Your task to perform on an android device: Clear the cart on costco. Search for macbook on costco, select the first entry, and add it to the cart. Image 0: 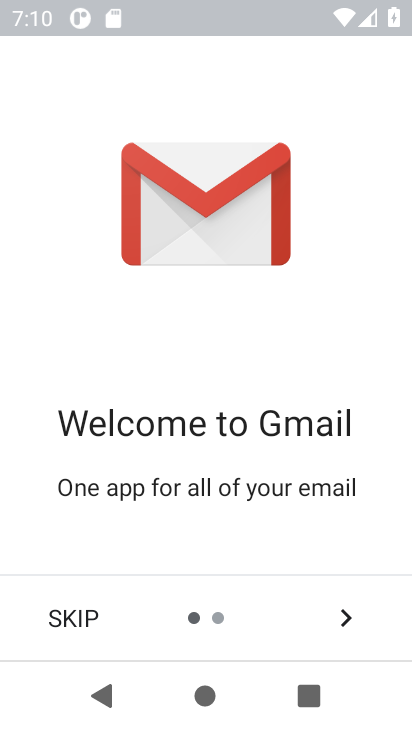
Step 0: press home button
Your task to perform on an android device: Clear the cart on costco. Search for macbook on costco, select the first entry, and add it to the cart. Image 1: 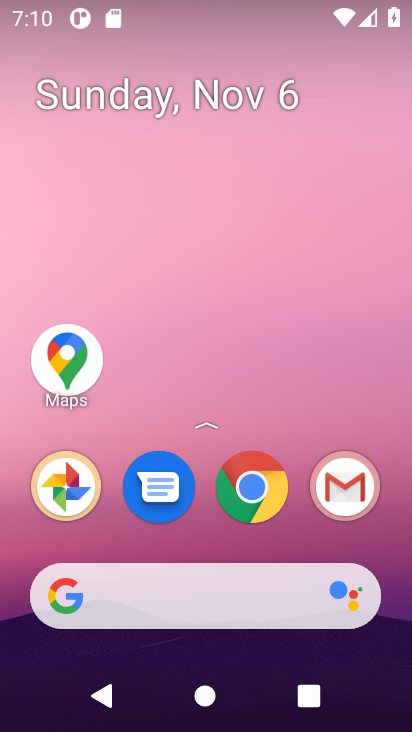
Step 1: click (255, 488)
Your task to perform on an android device: Clear the cart on costco. Search for macbook on costco, select the first entry, and add it to the cart. Image 2: 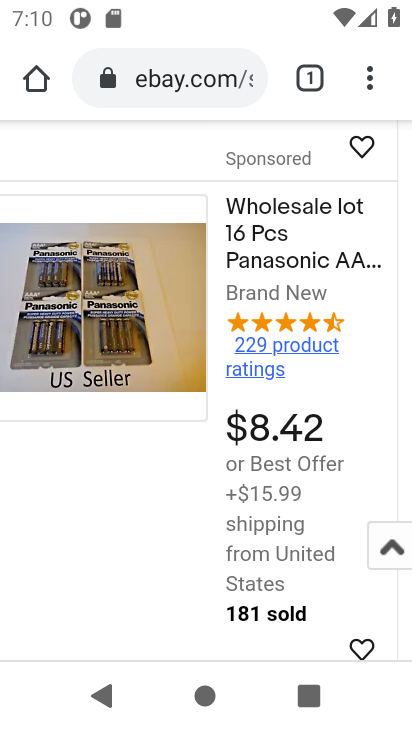
Step 2: click (187, 66)
Your task to perform on an android device: Clear the cart on costco. Search for macbook on costco, select the first entry, and add it to the cart. Image 3: 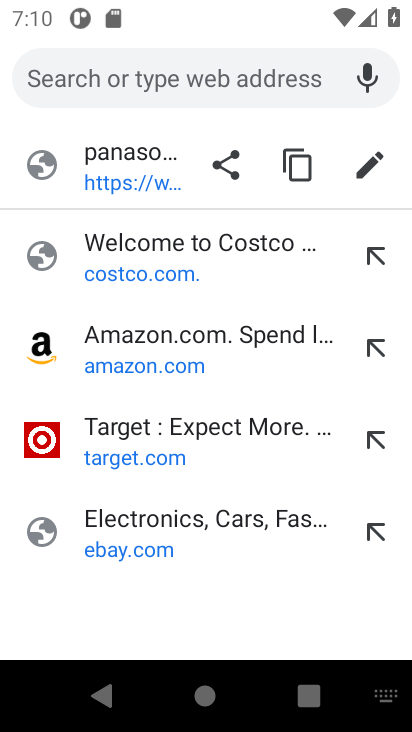
Step 3: click (150, 252)
Your task to perform on an android device: Clear the cart on costco. Search for macbook on costco, select the first entry, and add it to the cart. Image 4: 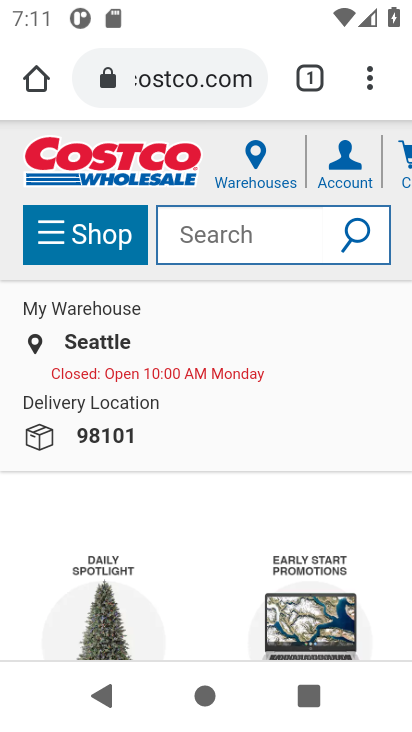
Step 4: click (230, 220)
Your task to perform on an android device: Clear the cart on costco. Search for macbook on costco, select the first entry, and add it to the cart. Image 5: 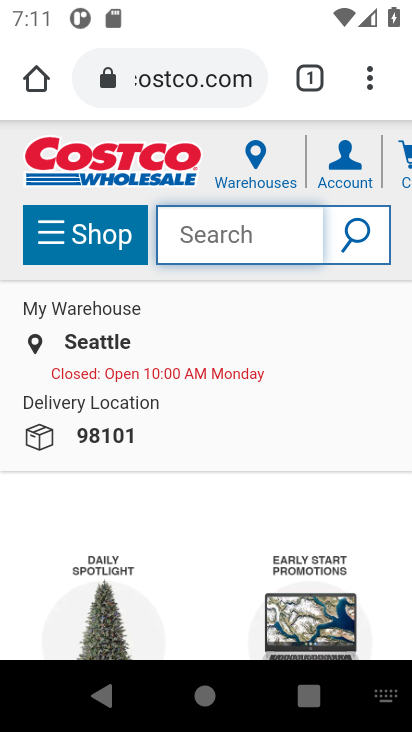
Step 5: click (229, 239)
Your task to perform on an android device: Clear the cart on costco. Search for macbook on costco, select the first entry, and add it to the cart. Image 6: 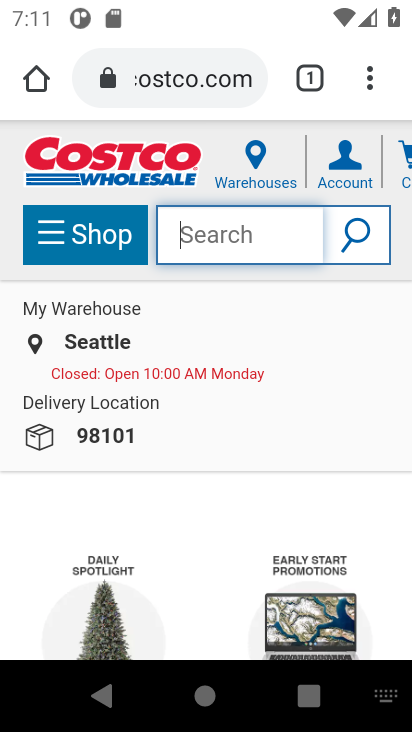
Step 6: type "macbook "
Your task to perform on an android device: Clear the cart on costco. Search for macbook on costco, select the first entry, and add it to the cart. Image 7: 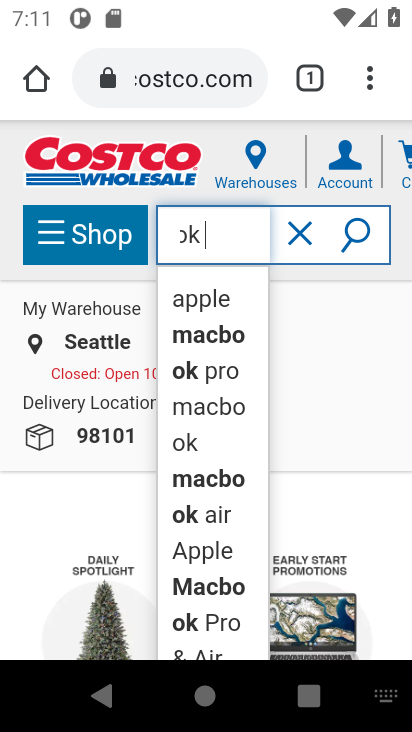
Step 7: click (360, 238)
Your task to perform on an android device: Clear the cart on costco. Search for macbook on costco, select the first entry, and add it to the cart. Image 8: 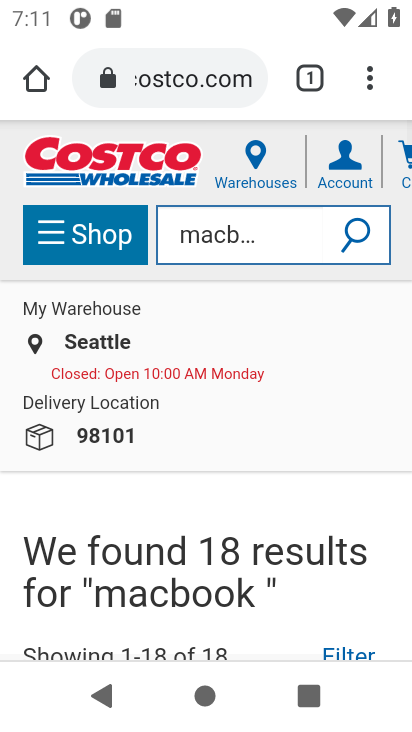
Step 8: drag from (244, 503) to (237, 60)
Your task to perform on an android device: Clear the cart on costco. Search for macbook on costco, select the first entry, and add it to the cart. Image 9: 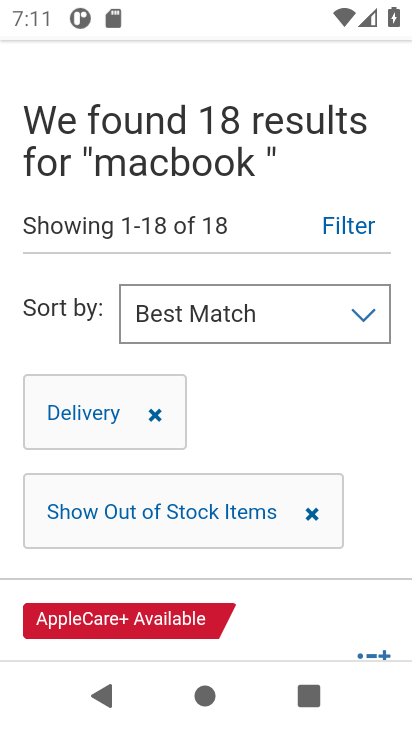
Step 9: drag from (252, 582) to (261, 160)
Your task to perform on an android device: Clear the cart on costco. Search for macbook on costco, select the first entry, and add it to the cart. Image 10: 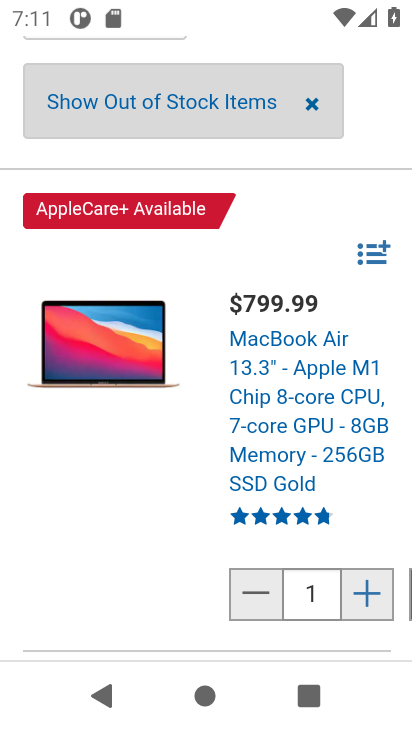
Step 10: drag from (365, 487) to (84, 471)
Your task to perform on an android device: Clear the cart on costco. Search for macbook on costco, select the first entry, and add it to the cart. Image 11: 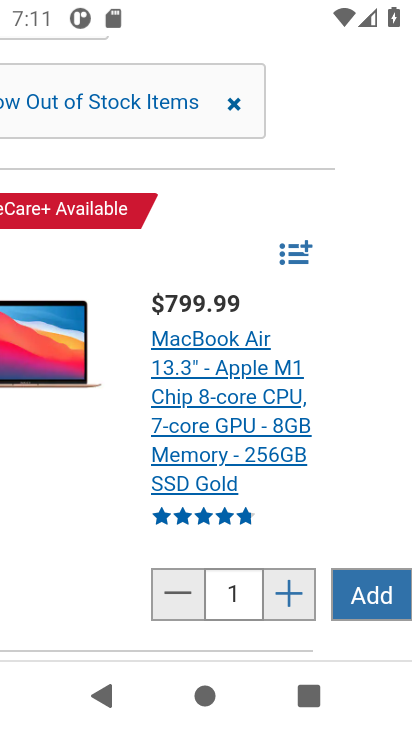
Step 11: click (369, 599)
Your task to perform on an android device: Clear the cart on costco. Search for macbook on costco, select the first entry, and add it to the cart. Image 12: 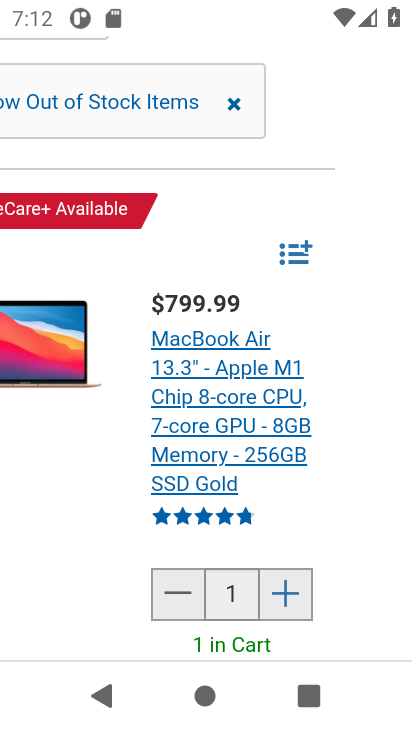
Step 12: task complete